Your task to perform on an android device: turn smart compose on in the gmail app Image 0: 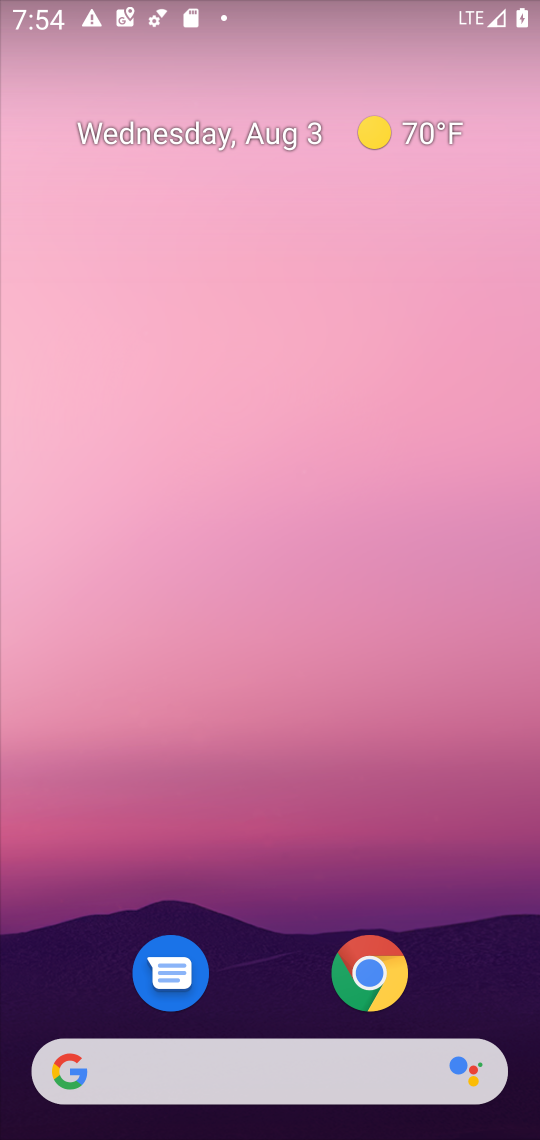
Step 0: press home button
Your task to perform on an android device: turn smart compose on in the gmail app Image 1: 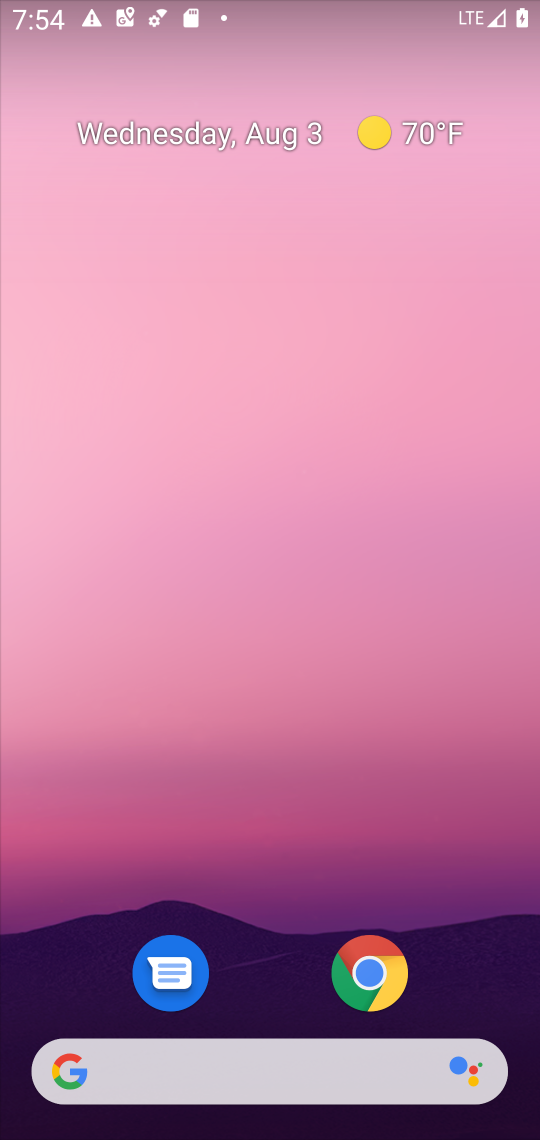
Step 1: drag from (274, 999) to (334, 78)
Your task to perform on an android device: turn smart compose on in the gmail app Image 2: 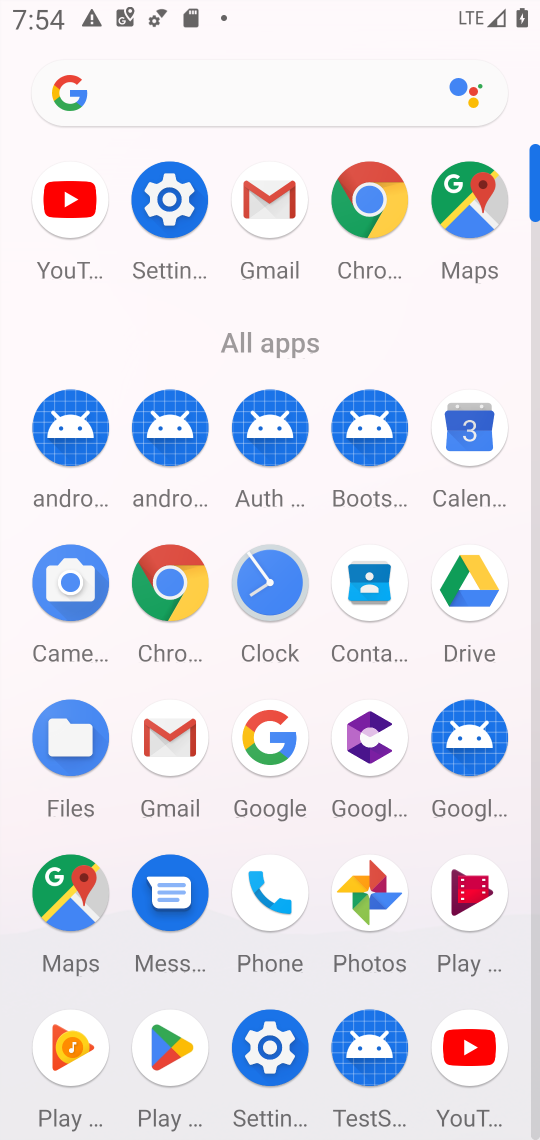
Step 2: click (162, 722)
Your task to perform on an android device: turn smart compose on in the gmail app Image 3: 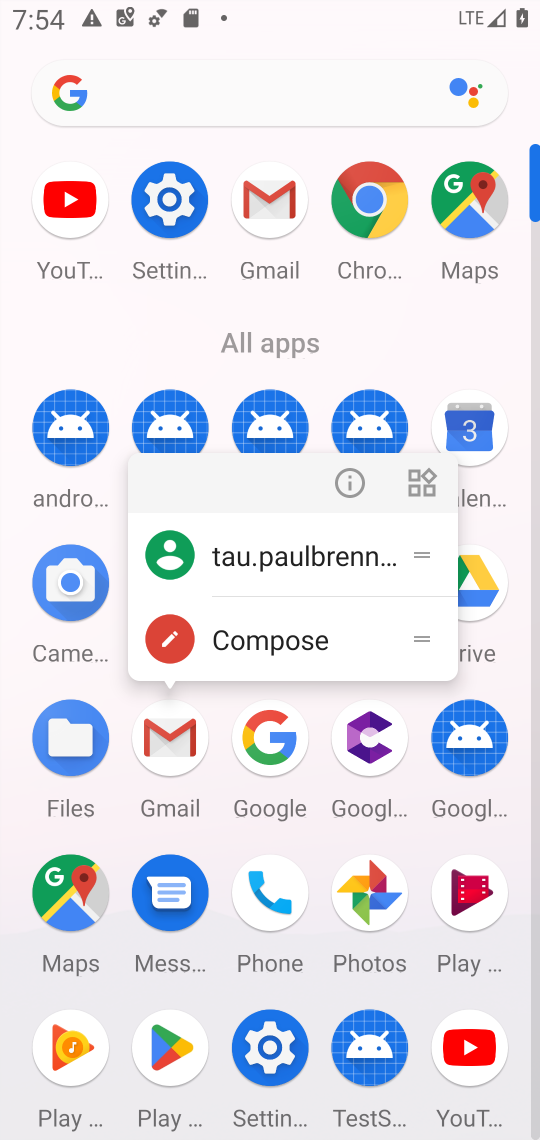
Step 3: click (167, 724)
Your task to perform on an android device: turn smart compose on in the gmail app Image 4: 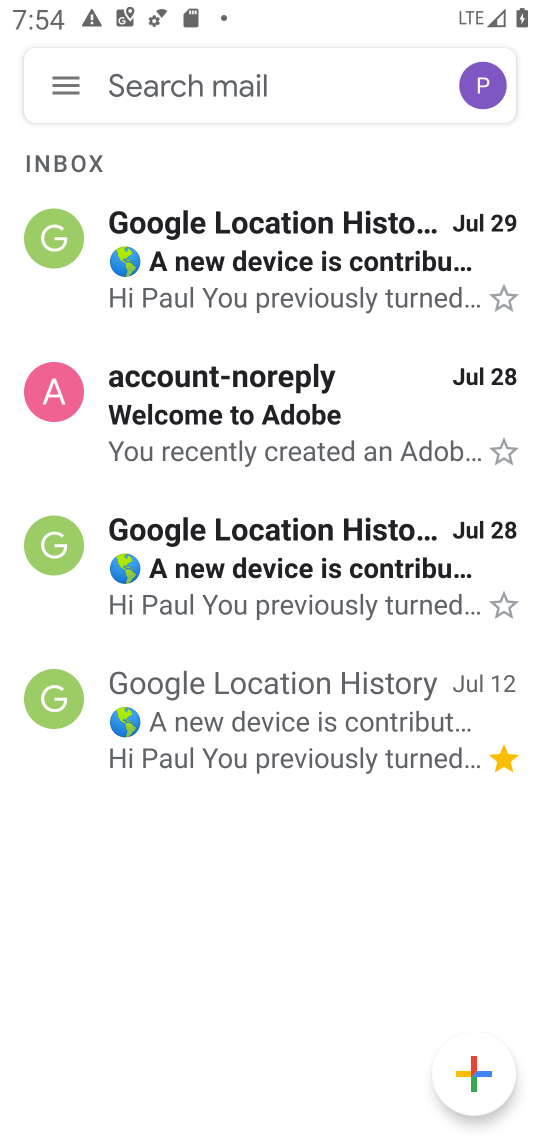
Step 4: click (65, 76)
Your task to perform on an android device: turn smart compose on in the gmail app Image 5: 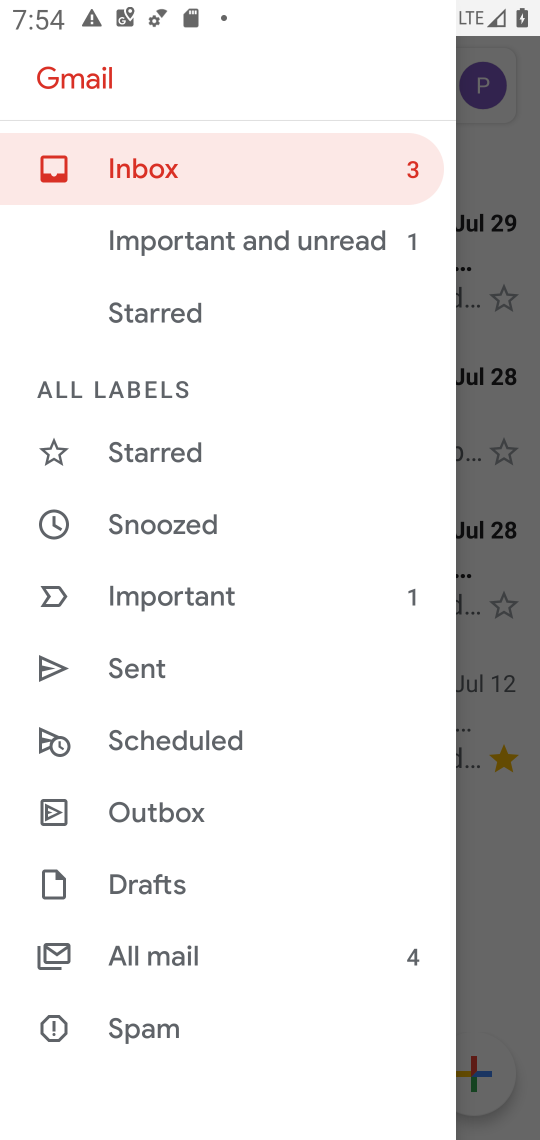
Step 5: drag from (166, 1007) to (196, 287)
Your task to perform on an android device: turn smart compose on in the gmail app Image 6: 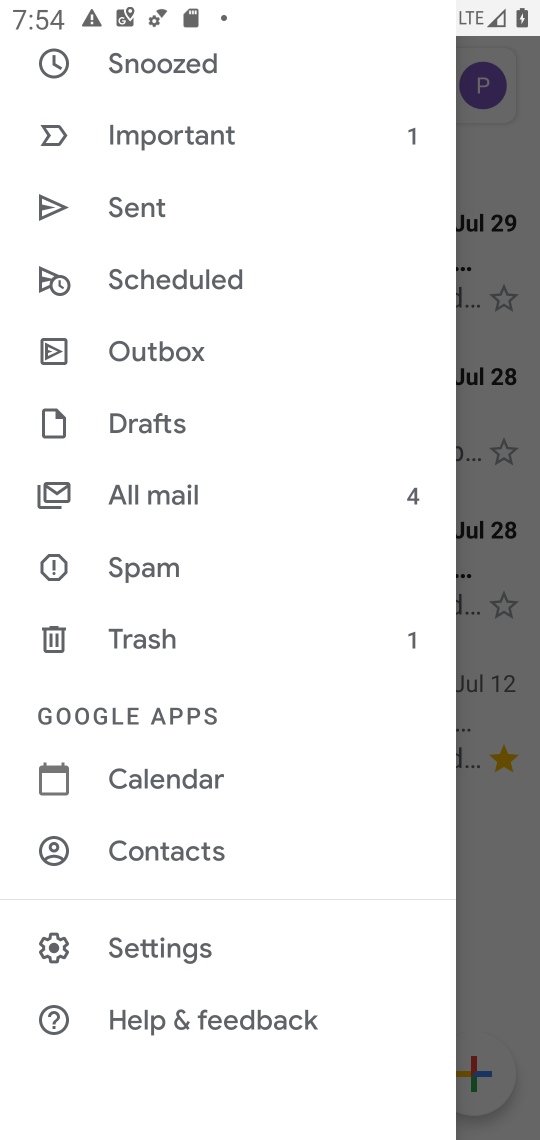
Step 6: click (224, 947)
Your task to perform on an android device: turn smart compose on in the gmail app Image 7: 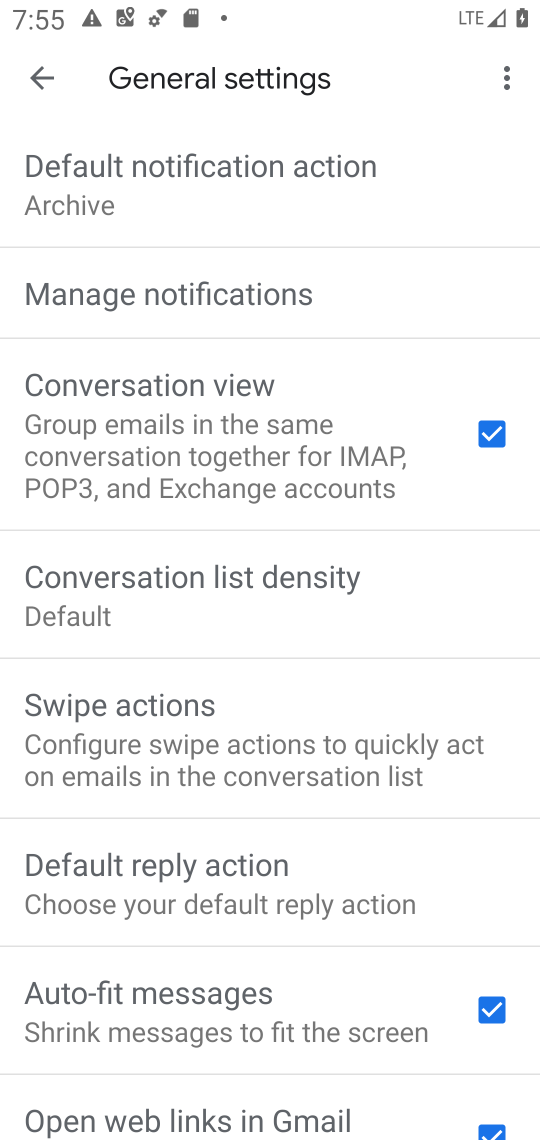
Step 7: click (58, 81)
Your task to perform on an android device: turn smart compose on in the gmail app Image 8: 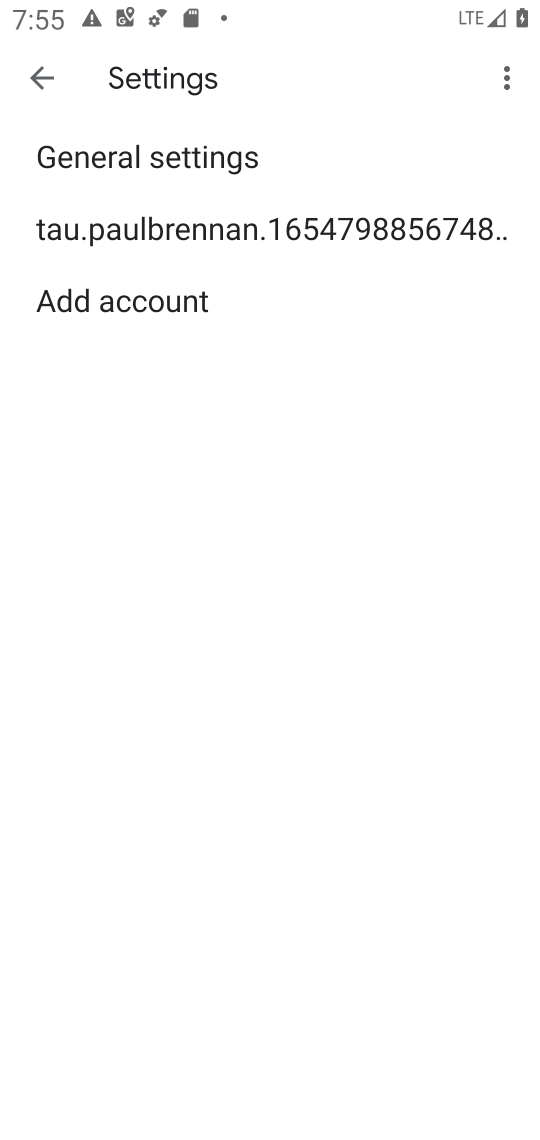
Step 8: click (251, 226)
Your task to perform on an android device: turn smart compose on in the gmail app Image 9: 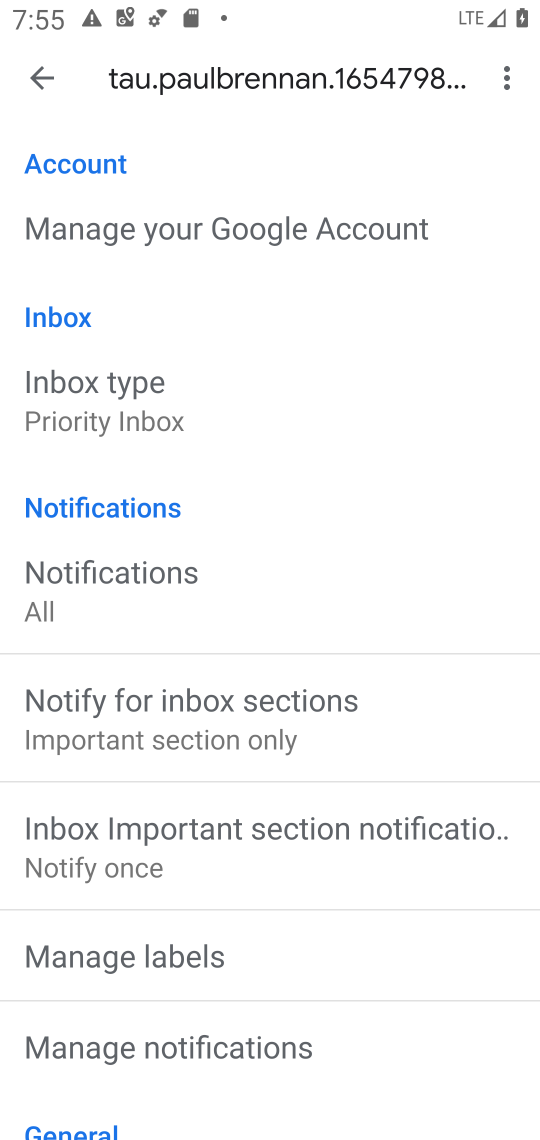
Step 9: task complete